Your task to perform on an android device: Is it going to rain tomorrow? Image 0: 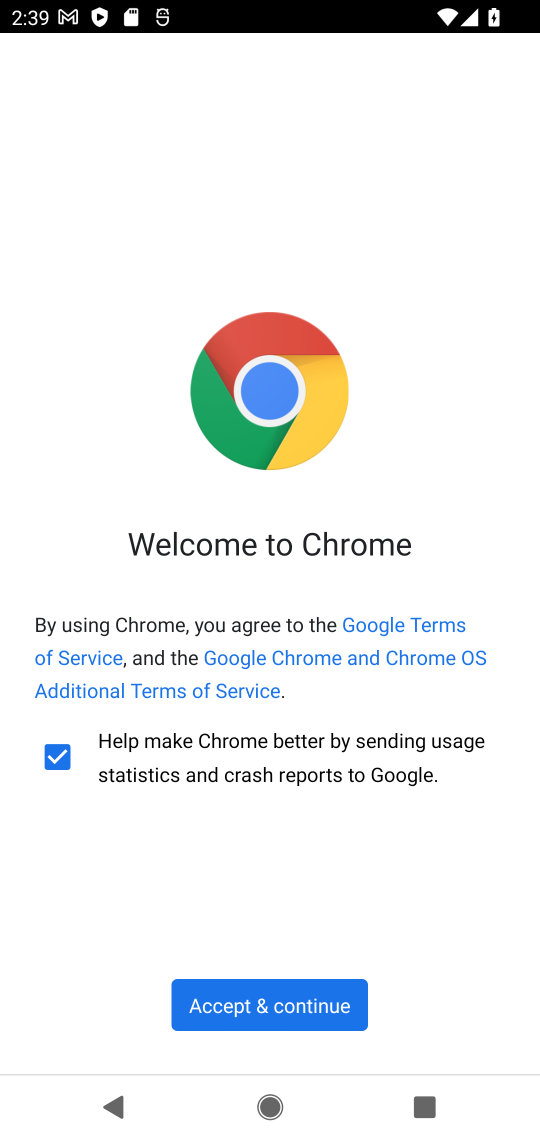
Step 0: click (278, 1011)
Your task to perform on an android device: Is it going to rain tomorrow? Image 1: 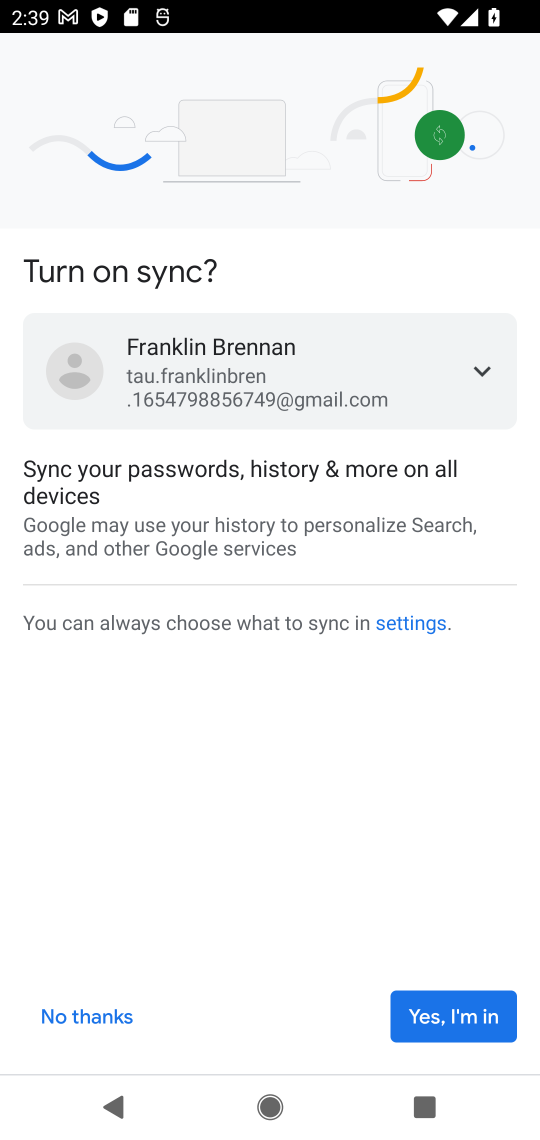
Step 1: click (458, 1011)
Your task to perform on an android device: Is it going to rain tomorrow? Image 2: 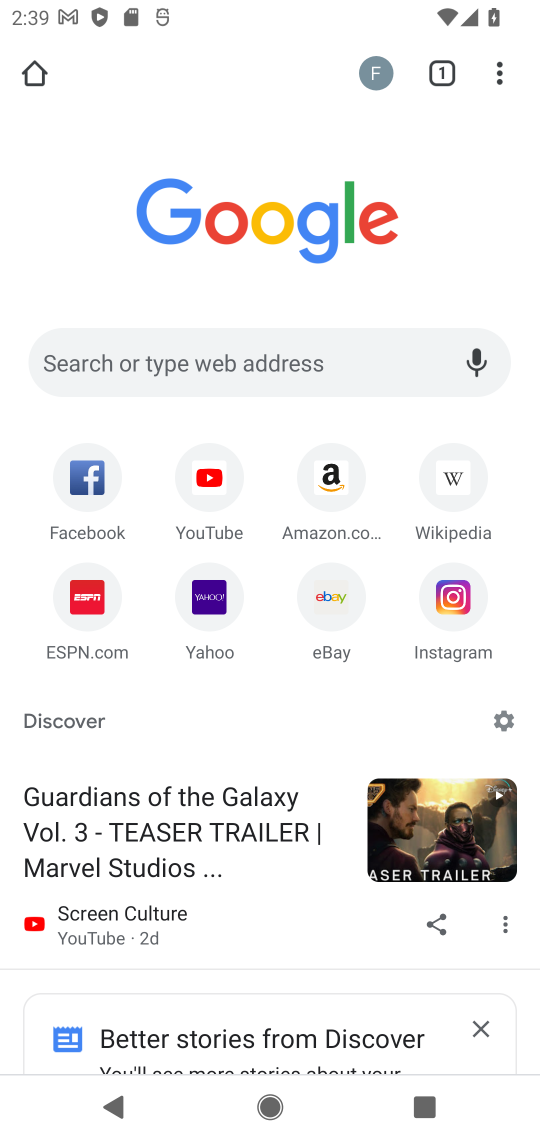
Step 2: click (243, 357)
Your task to perform on an android device: Is it going to rain tomorrow? Image 3: 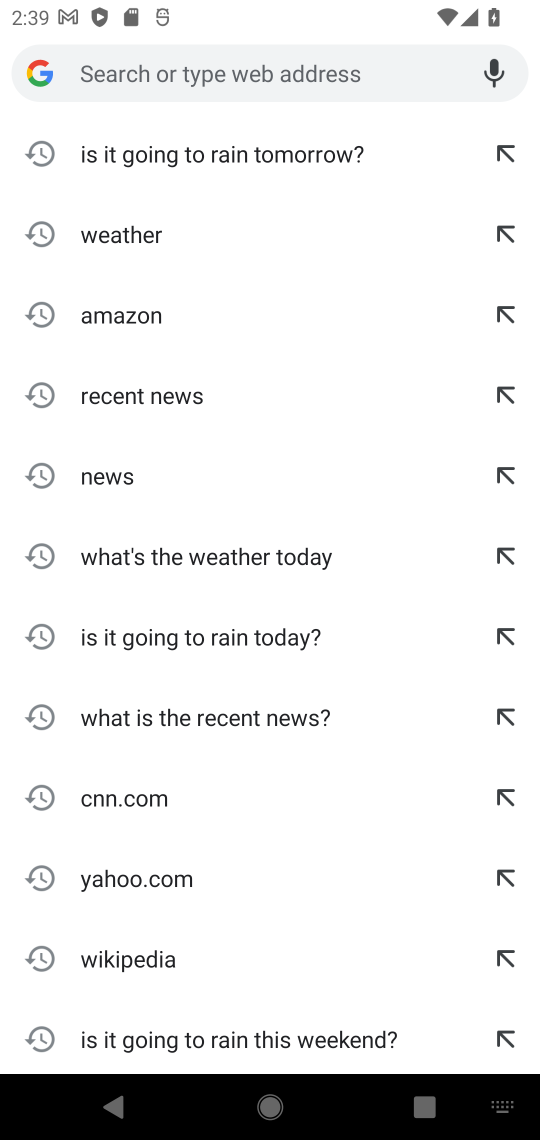
Step 3: click (164, 134)
Your task to perform on an android device: Is it going to rain tomorrow? Image 4: 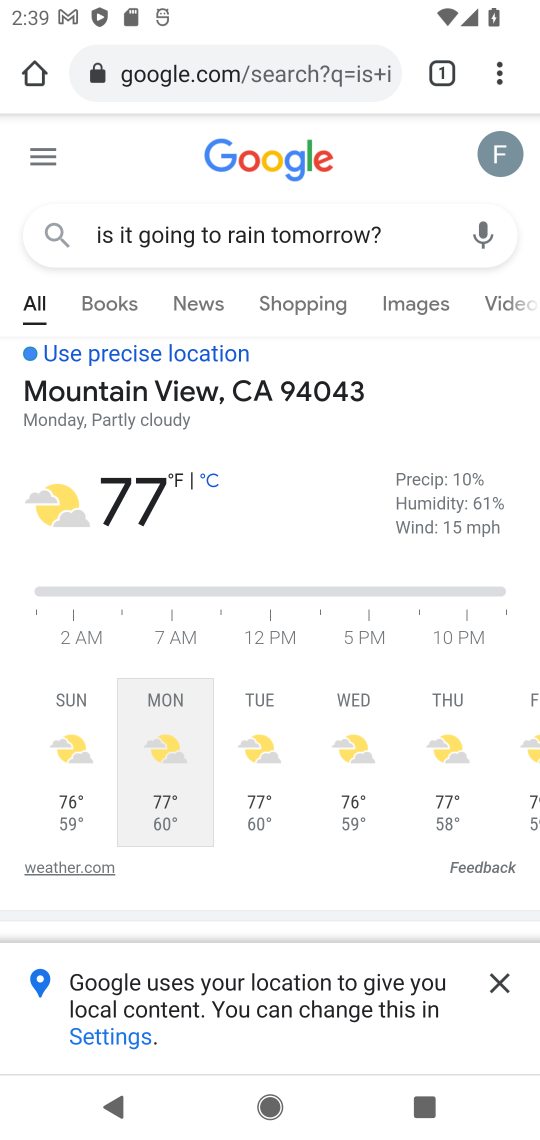
Step 4: task complete